Your task to perform on an android device: Open maps Image 0: 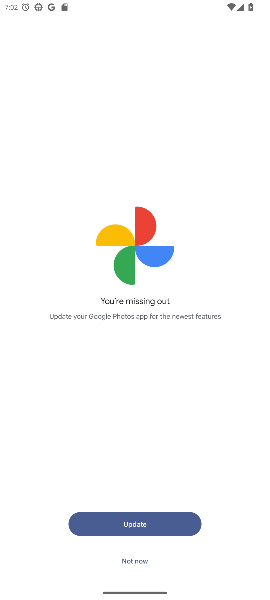
Step 0: press home button
Your task to perform on an android device: Open maps Image 1: 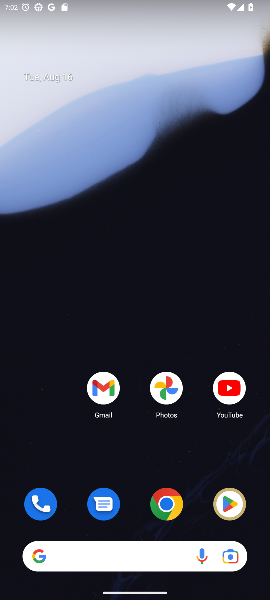
Step 1: drag from (6, 578) to (123, 222)
Your task to perform on an android device: Open maps Image 2: 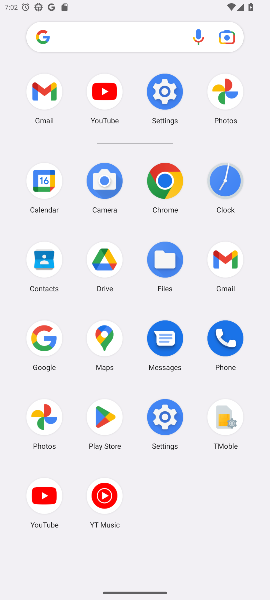
Step 2: click (103, 341)
Your task to perform on an android device: Open maps Image 3: 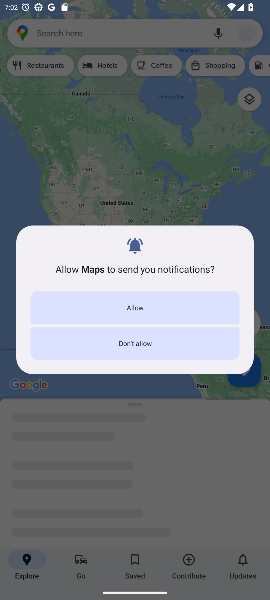
Step 3: click (118, 307)
Your task to perform on an android device: Open maps Image 4: 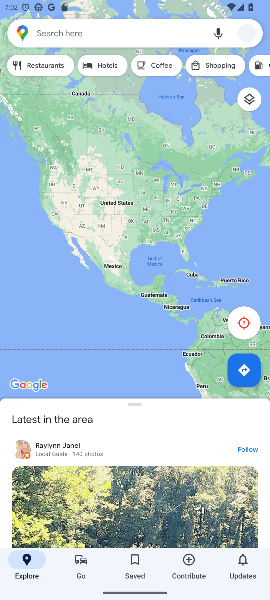
Step 4: task complete